Your task to perform on an android device: check battery use Image 0: 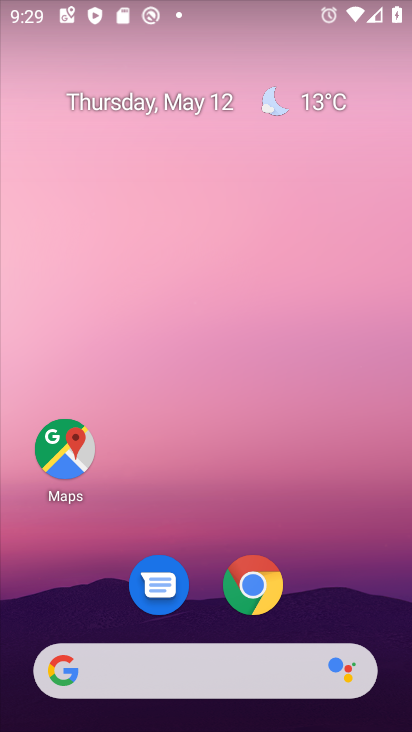
Step 0: drag from (283, 469) to (202, 73)
Your task to perform on an android device: check battery use Image 1: 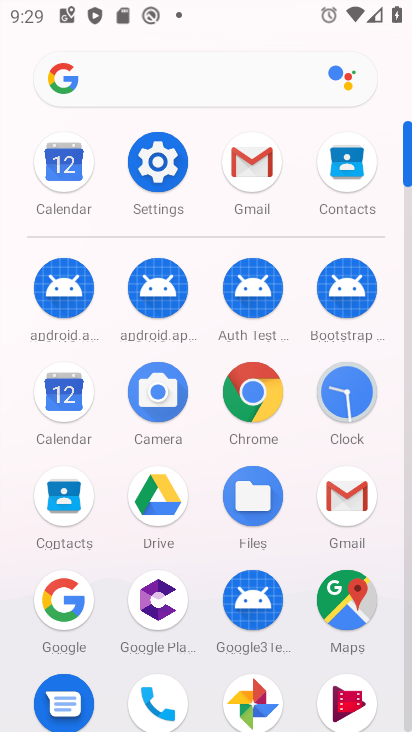
Step 1: click (167, 170)
Your task to perform on an android device: check battery use Image 2: 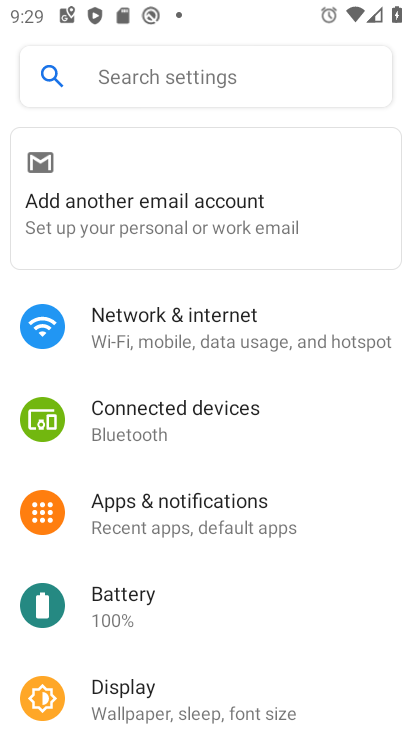
Step 2: click (149, 596)
Your task to perform on an android device: check battery use Image 3: 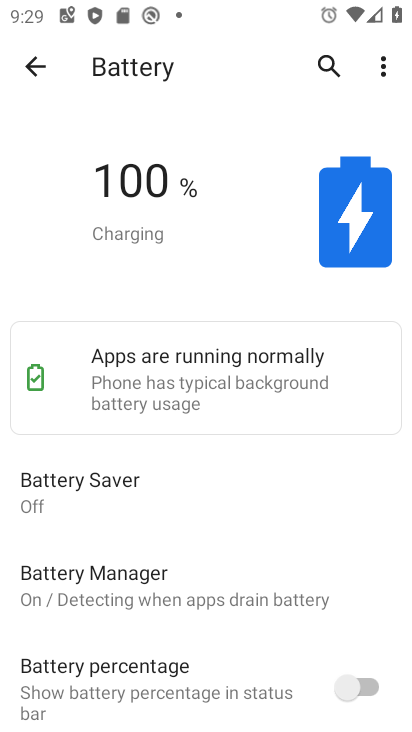
Step 3: click (379, 57)
Your task to perform on an android device: check battery use Image 4: 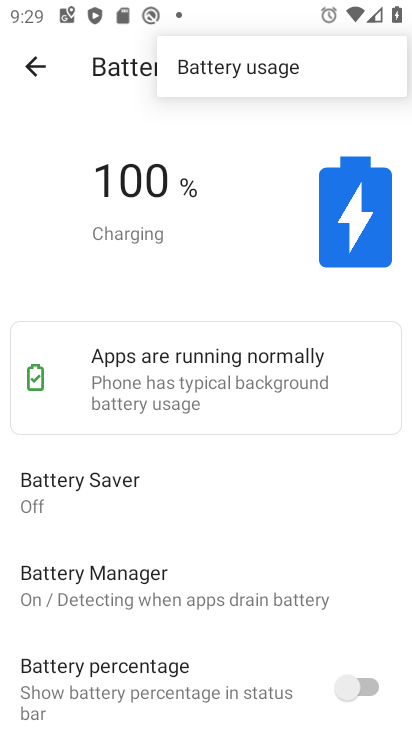
Step 4: click (296, 59)
Your task to perform on an android device: check battery use Image 5: 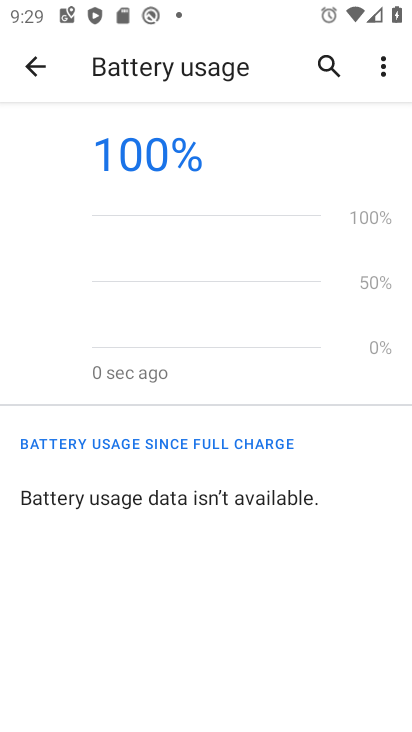
Step 5: task complete